Your task to perform on an android device: open a new tab in the chrome app Image 0: 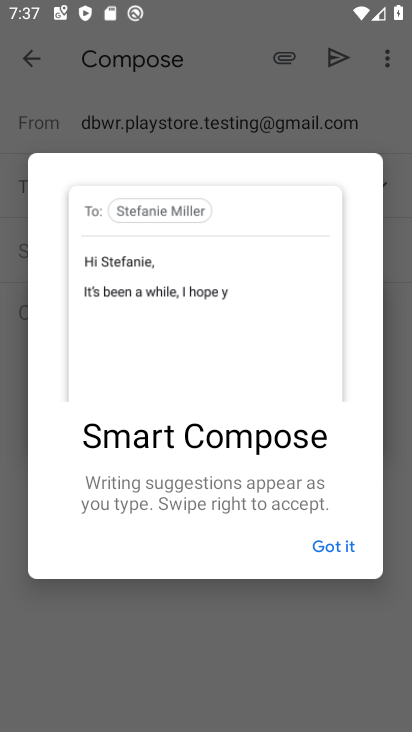
Step 0: press home button
Your task to perform on an android device: open a new tab in the chrome app Image 1: 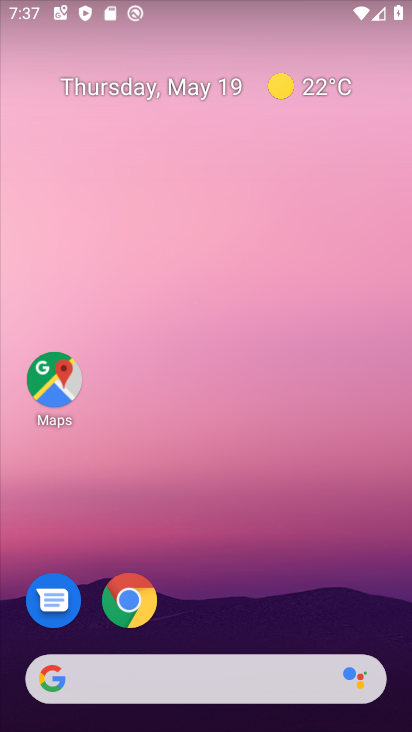
Step 1: drag from (350, 627) to (307, 250)
Your task to perform on an android device: open a new tab in the chrome app Image 2: 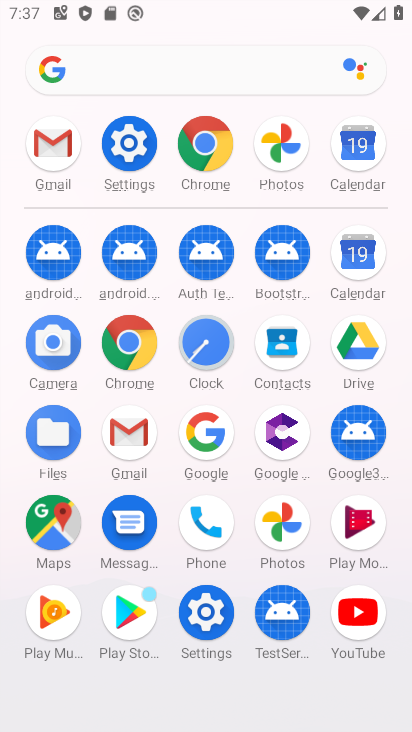
Step 2: click (148, 317)
Your task to perform on an android device: open a new tab in the chrome app Image 3: 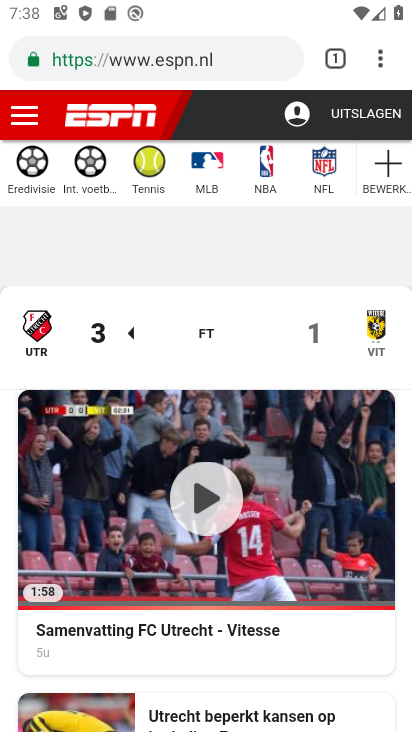
Step 3: click (327, 54)
Your task to perform on an android device: open a new tab in the chrome app Image 4: 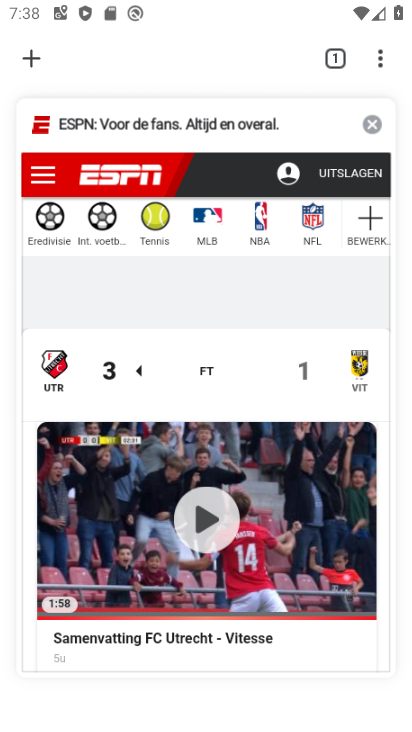
Step 4: task complete